Your task to perform on an android device: Open Chrome and go to settings Image 0: 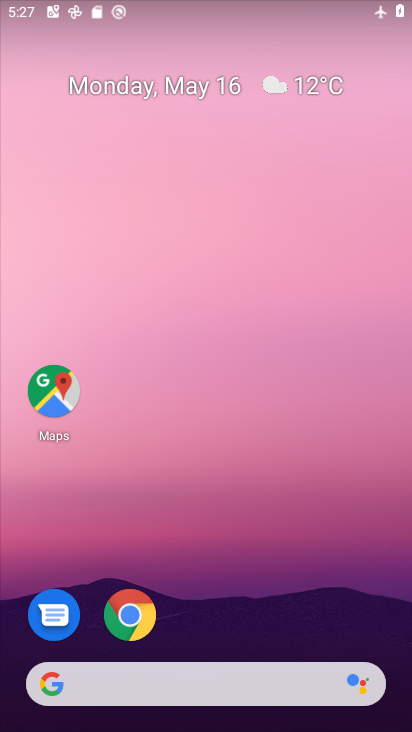
Step 0: drag from (219, 621) to (194, 26)
Your task to perform on an android device: Open Chrome and go to settings Image 1: 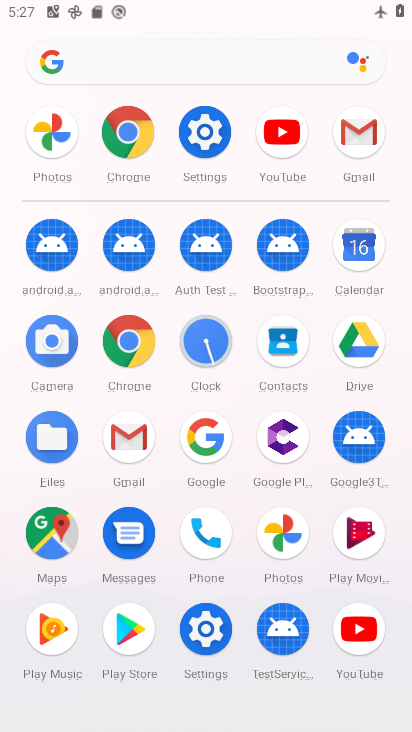
Step 1: click (116, 187)
Your task to perform on an android device: Open Chrome and go to settings Image 2: 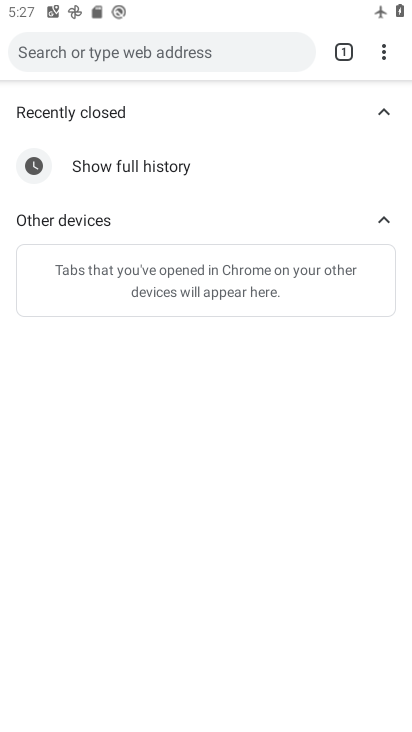
Step 2: click (381, 51)
Your task to perform on an android device: Open Chrome and go to settings Image 3: 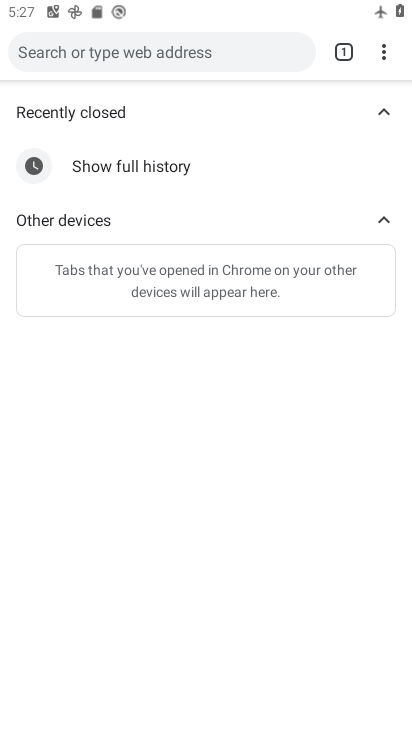
Step 3: click (382, 59)
Your task to perform on an android device: Open Chrome and go to settings Image 4: 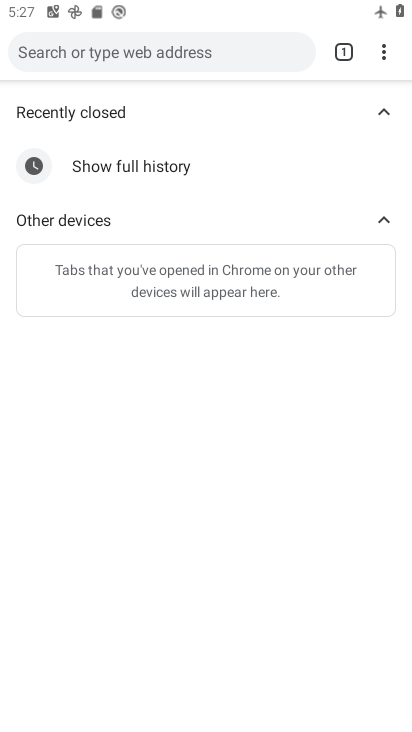
Step 4: click (384, 49)
Your task to perform on an android device: Open Chrome and go to settings Image 5: 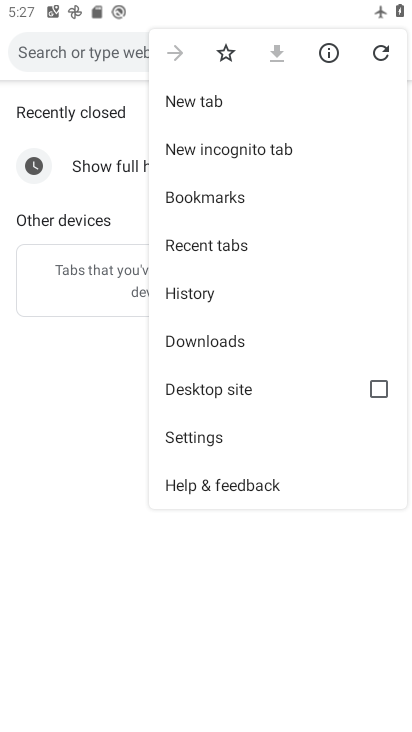
Step 5: click (207, 446)
Your task to perform on an android device: Open Chrome and go to settings Image 6: 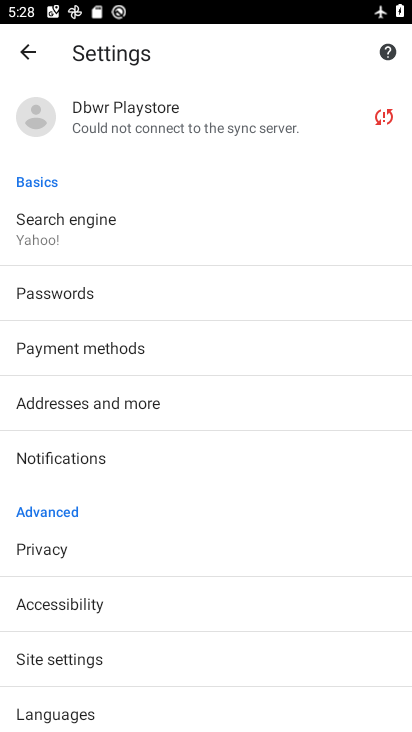
Step 6: task complete